Your task to perform on an android device: Go to accessibility settings Image 0: 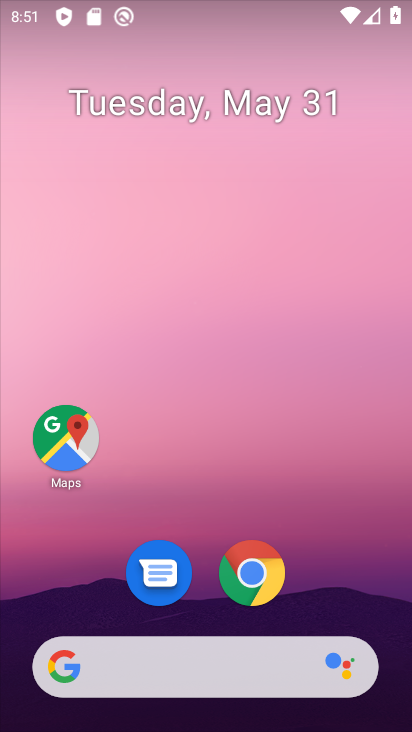
Step 0: drag from (315, 619) to (296, 211)
Your task to perform on an android device: Go to accessibility settings Image 1: 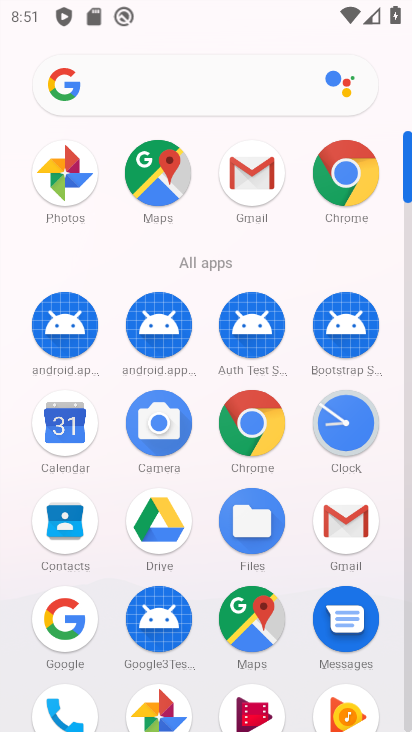
Step 1: drag from (210, 569) to (268, 209)
Your task to perform on an android device: Go to accessibility settings Image 2: 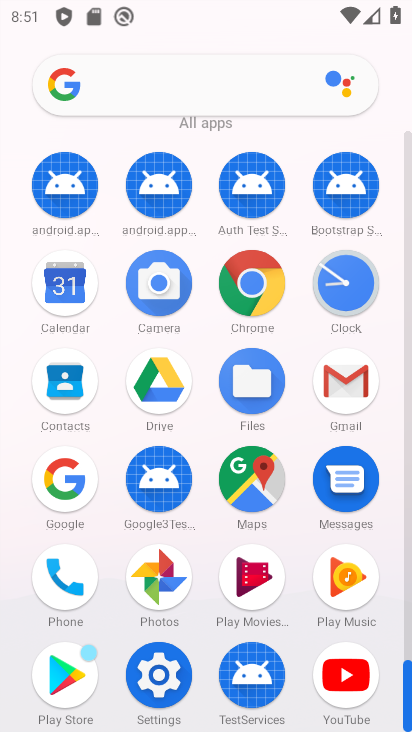
Step 2: click (155, 679)
Your task to perform on an android device: Go to accessibility settings Image 3: 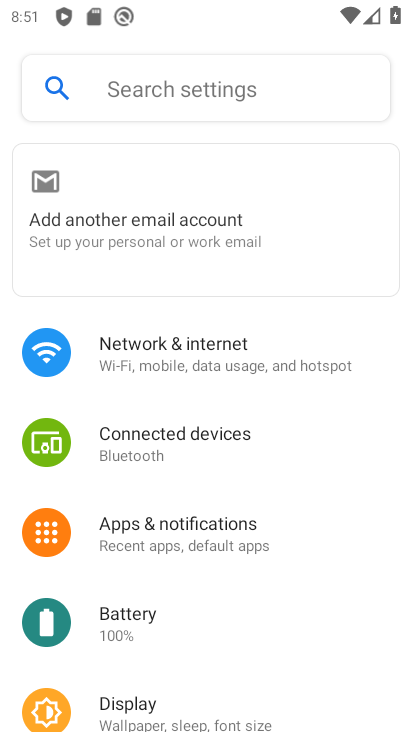
Step 3: drag from (217, 679) to (265, 148)
Your task to perform on an android device: Go to accessibility settings Image 4: 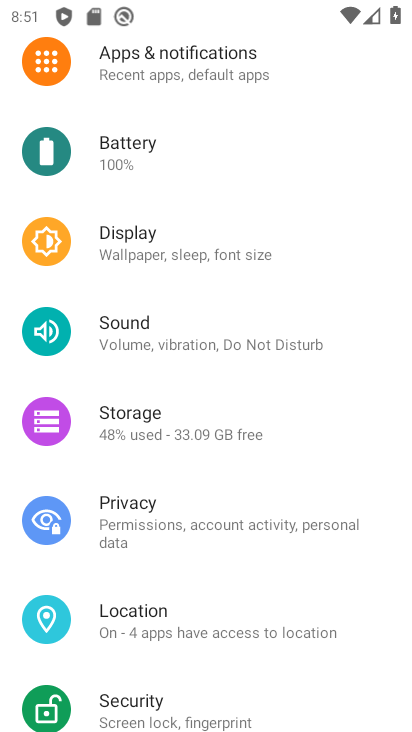
Step 4: drag from (204, 665) to (294, 200)
Your task to perform on an android device: Go to accessibility settings Image 5: 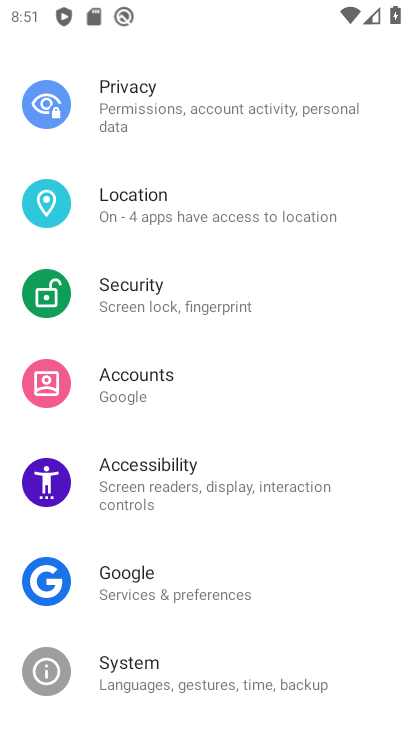
Step 5: click (192, 498)
Your task to perform on an android device: Go to accessibility settings Image 6: 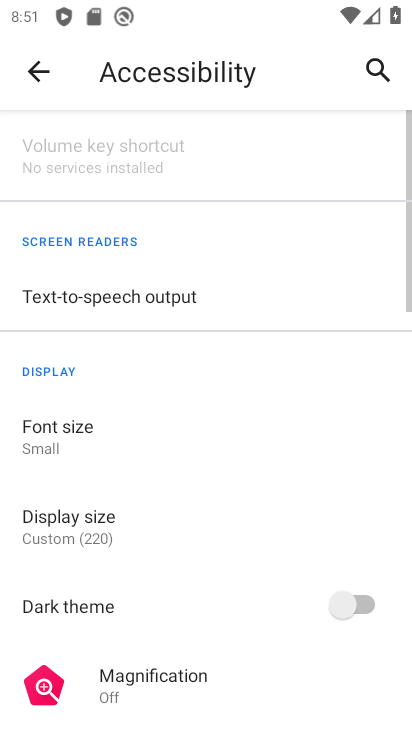
Step 6: task complete